Your task to perform on an android device: When is my next meeting? Image 0: 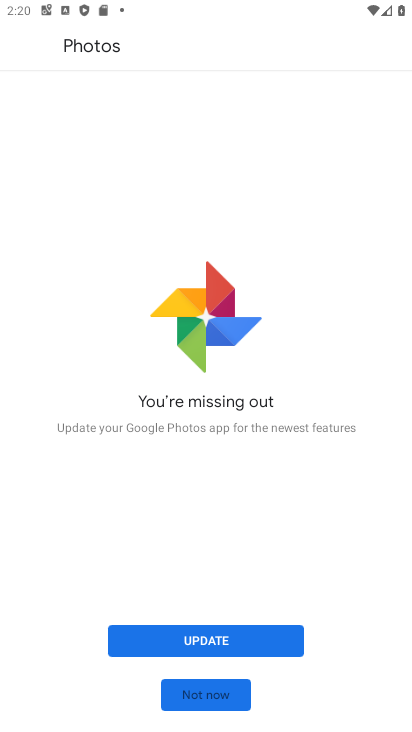
Step 0: press home button
Your task to perform on an android device: When is my next meeting? Image 1: 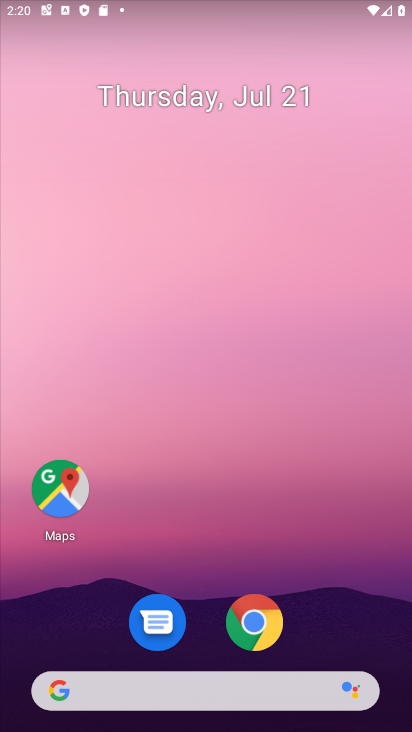
Step 1: drag from (240, 712) to (115, 248)
Your task to perform on an android device: When is my next meeting? Image 2: 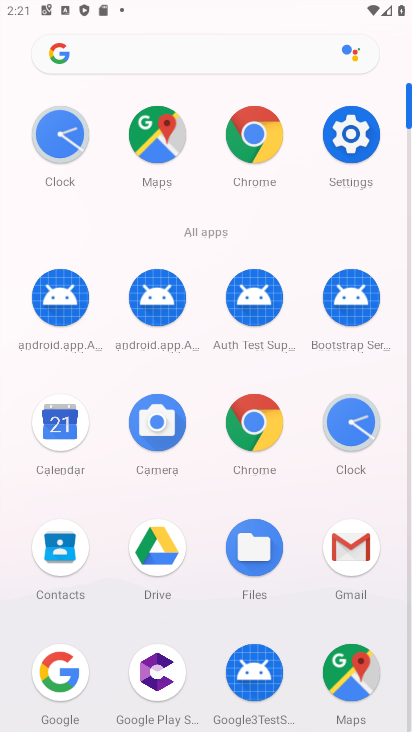
Step 2: click (68, 444)
Your task to perform on an android device: When is my next meeting? Image 3: 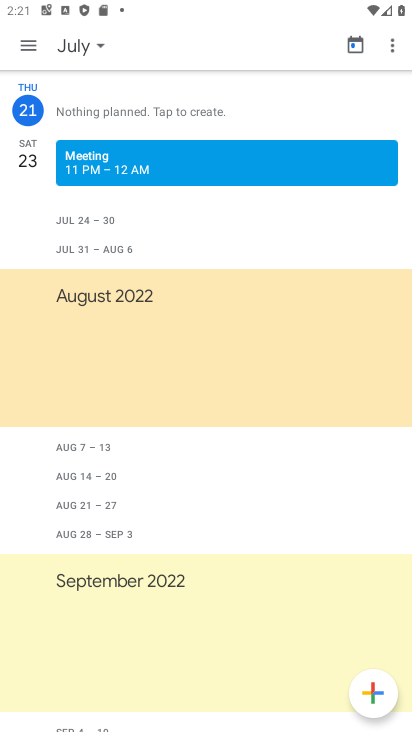
Step 3: click (30, 47)
Your task to perform on an android device: When is my next meeting? Image 4: 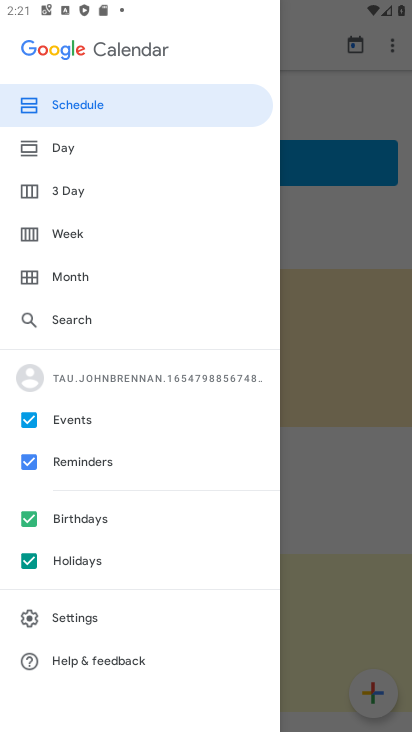
Step 4: click (67, 277)
Your task to perform on an android device: When is my next meeting? Image 5: 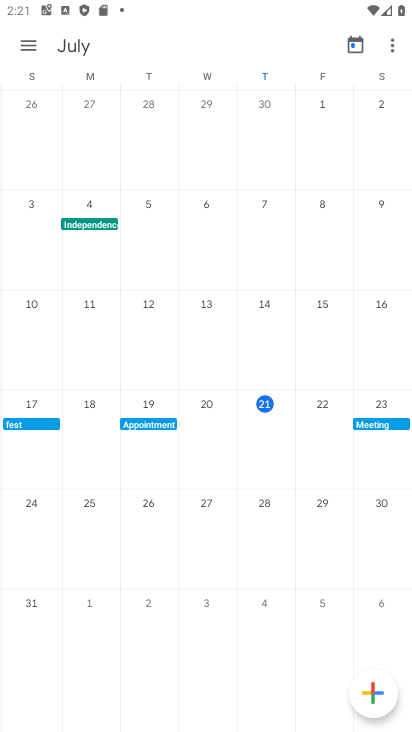
Step 5: click (267, 405)
Your task to perform on an android device: When is my next meeting? Image 6: 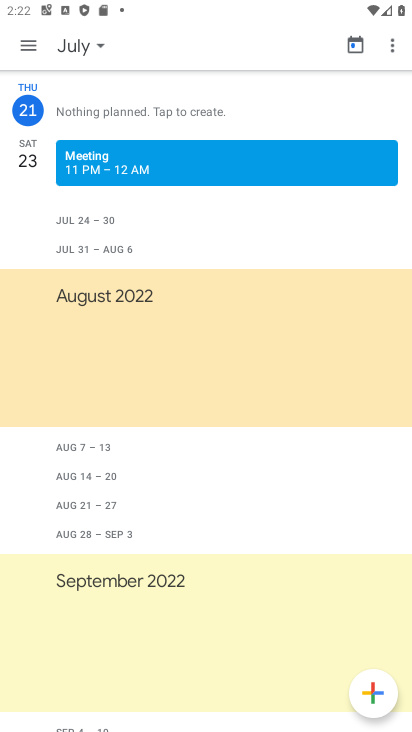
Step 6: task complete